Your task to perform on an android device: Open privacy settings Image 0: 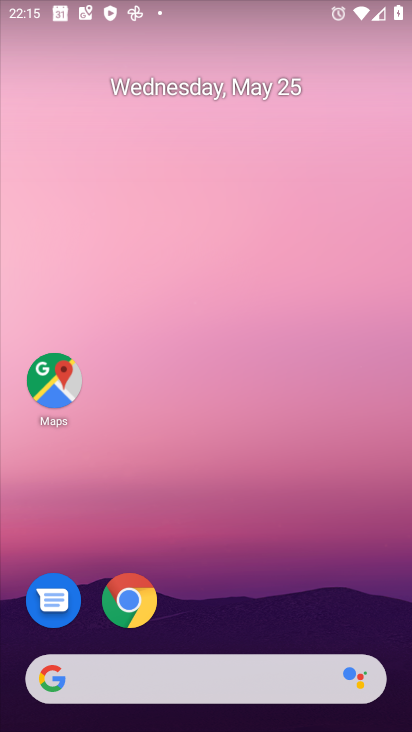
Step 0: drag from (286, 611) to (276, 183)
Your task to perform on an android device: Open privacy settings Image 1: 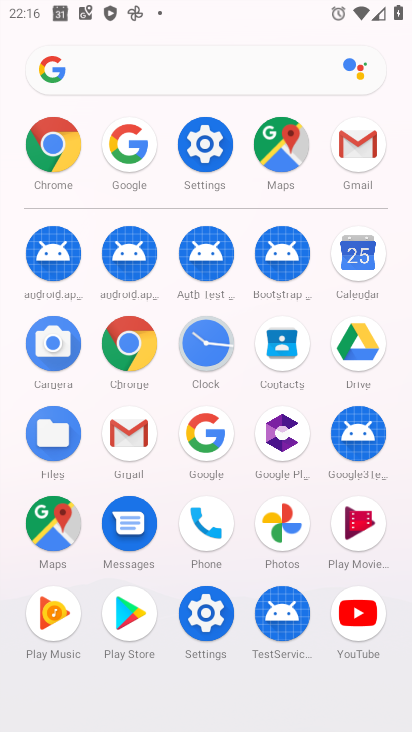
Step 1: click (213, 629)
Your task to perform on an android device: Open privacy settings Image 2: 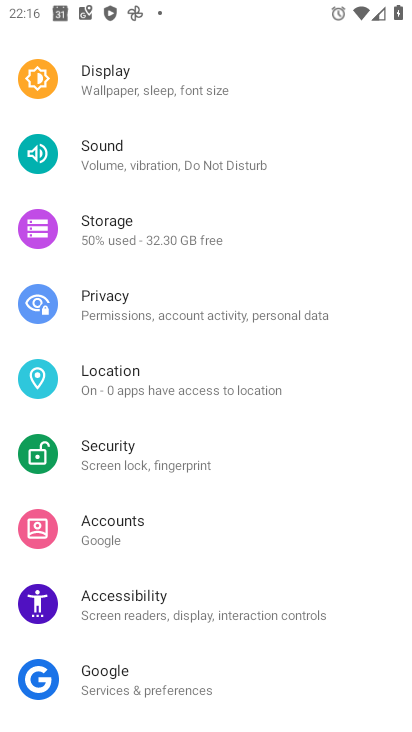
Step 2: task complete